Your task to perform on an android device: Open accessibility settings Image 0: 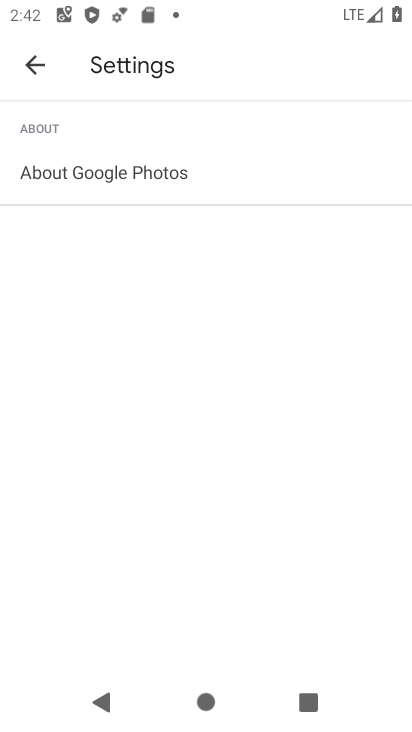
Step 0: press home button
Your task to perform on an android device: Open accessibility settings Image 1: 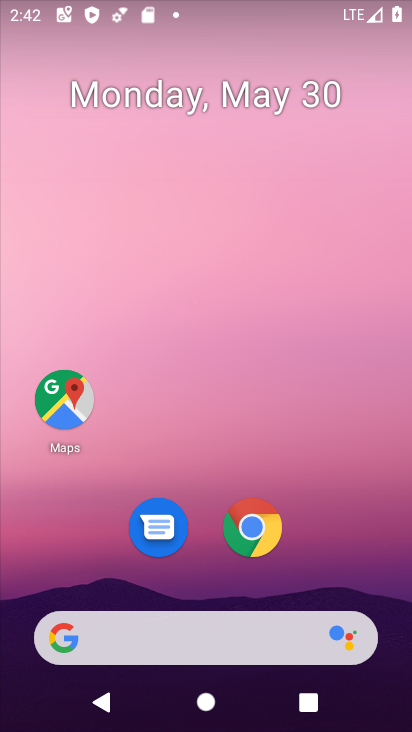
Step 1: drag from (306, 536) to (339, 127)
Your task to perform on an android device: Open accessibility settings Image 2: 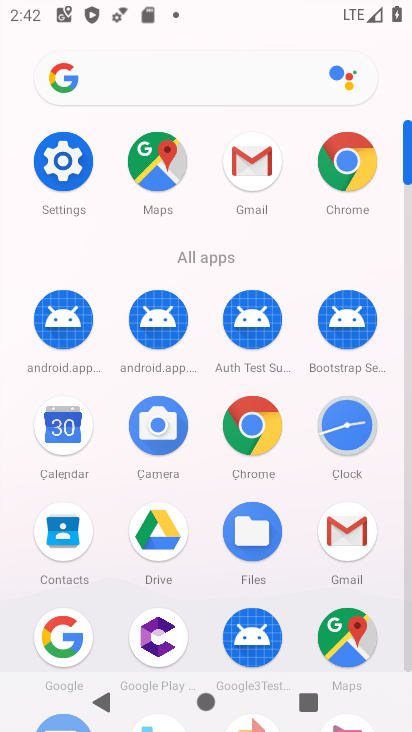
Step 2: click (67, 169)
Your task to perform on an android device: Open accessibility settings Image 3: 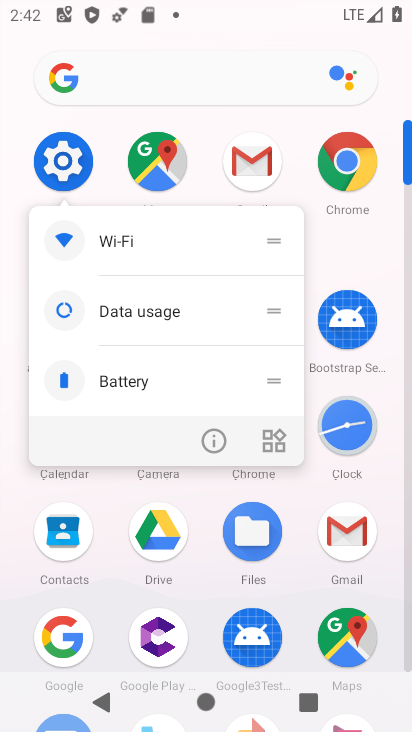
Step 3: click (72, 157)
Your task to perform on an android device: Open accessibility settings Image 4: 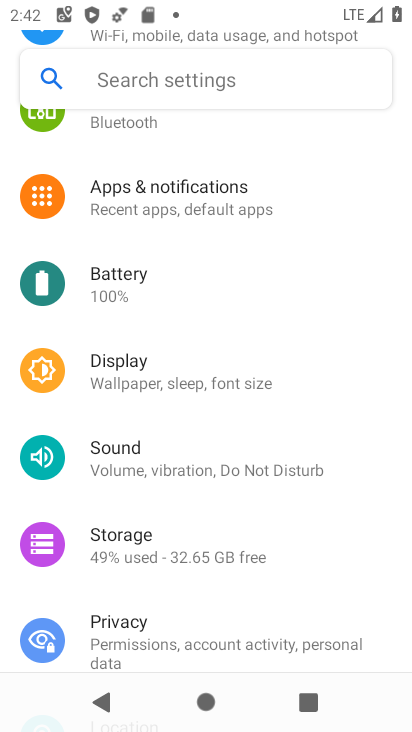
Step 4: drag from (203, 577) to (198, 152)
Your task to perform on an android device: Open accessibility settings Image 5: 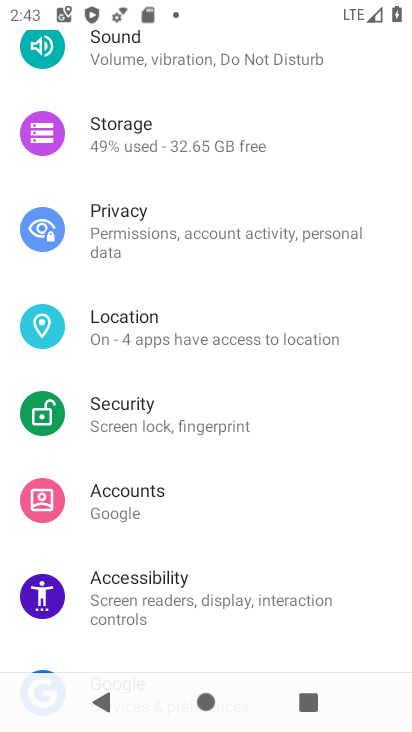
Step 5: click (153, 588)
Your task to perform on an android device: Open accessibility settings Image 6: 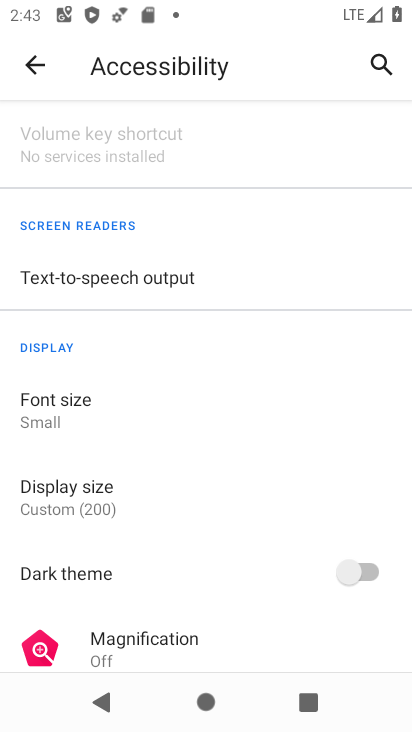
Step 6: task complete